Your task to perform on an android device: refresh tabs in the chrome app Image 0: 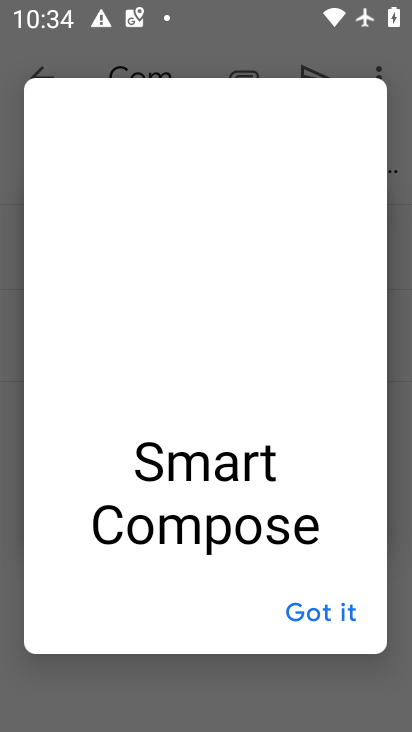
Step 0: press home button
Your task to perform on an android device: refresh tabs in the chrome app Image 1: 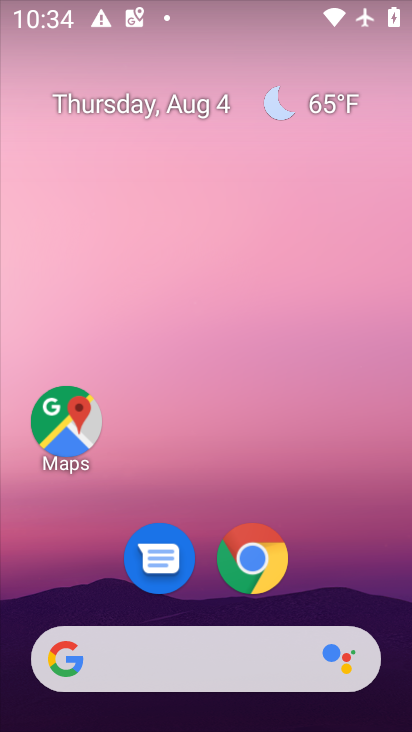
Step 1: drag from (366, 566) to (291, 37)
Your task to perform on an android device: refresh tabs in the chrome app Image 2: 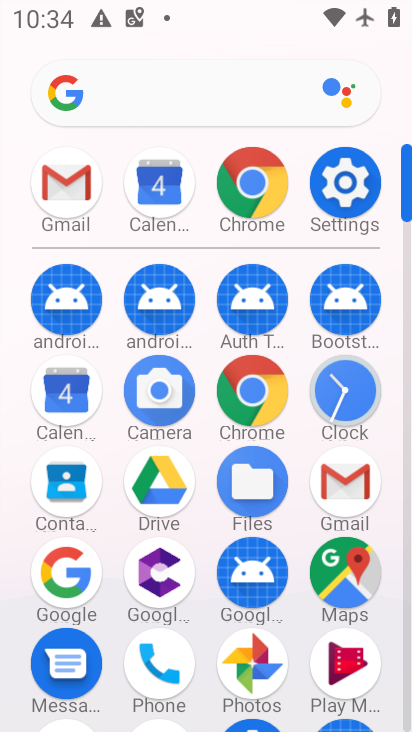
Step 2: click (258, 392)
Your task to perform on an android device: refresh tabs in the chrome app Image 3: 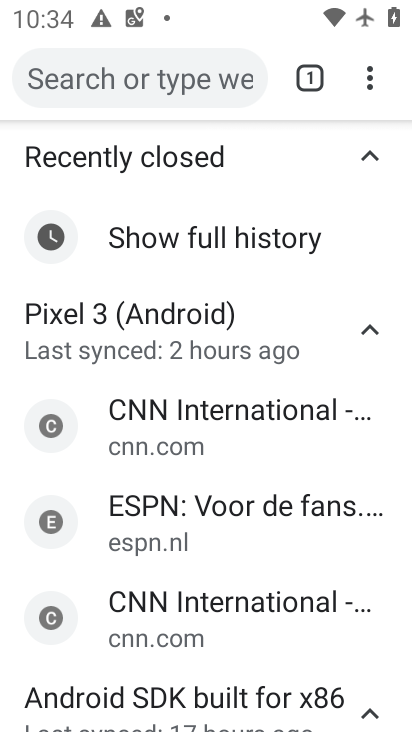
Step 3: click (367, 78)
Your task to perform on an android device: refresh tabs in the chrome app Image 4: 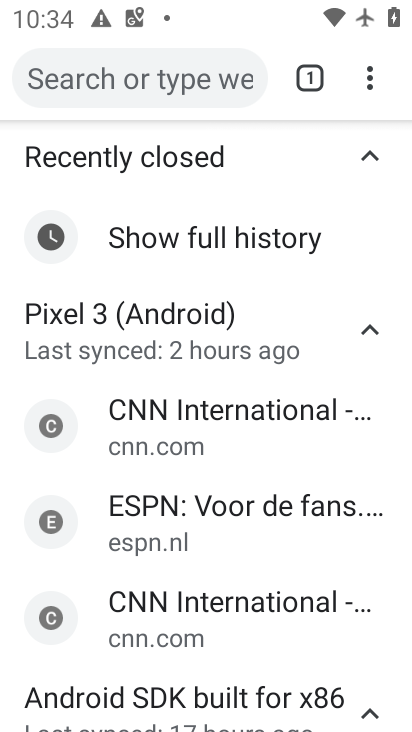
Step 4: click (367, 78)
Your task to perform on an android device: refresh tabs in the chrome app Image 5: 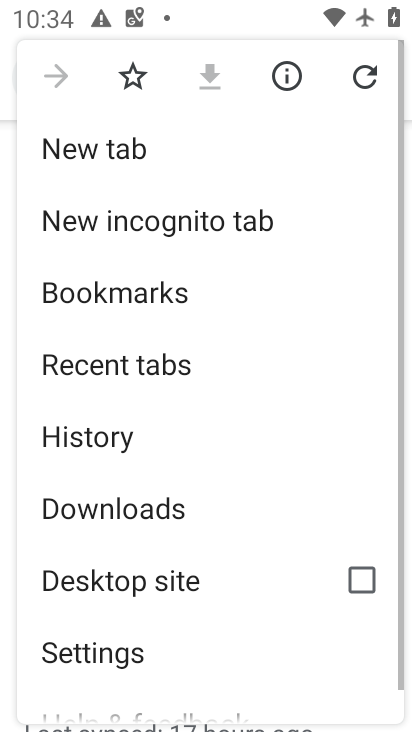
Step 5: click (367, 78)
Your task to perform on an android device: refresh tabs in the chrome app Image 6: 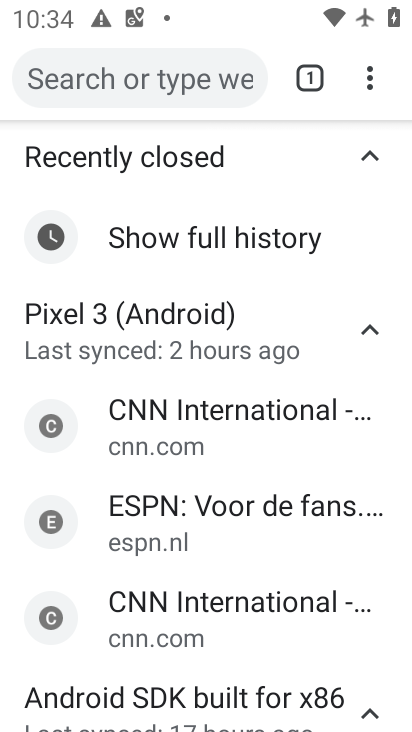
Step 6: task complete